Your task to perform on an android device: search for starred emails in the gmail app Image 0: 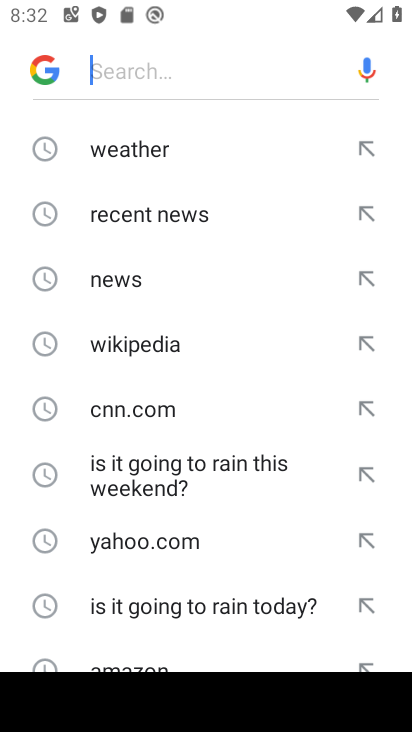
Step 0: press home button
Your task to perform on an android device: search for starred emails in the gmail app Image 1: 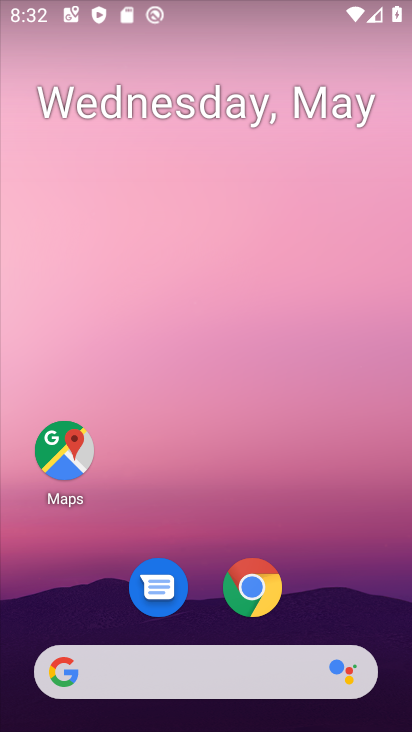
Step 1: drag from (370, 596) to (319, 54)
Your task to perform on an android device: search for starred emails in the gmail app Image 2: 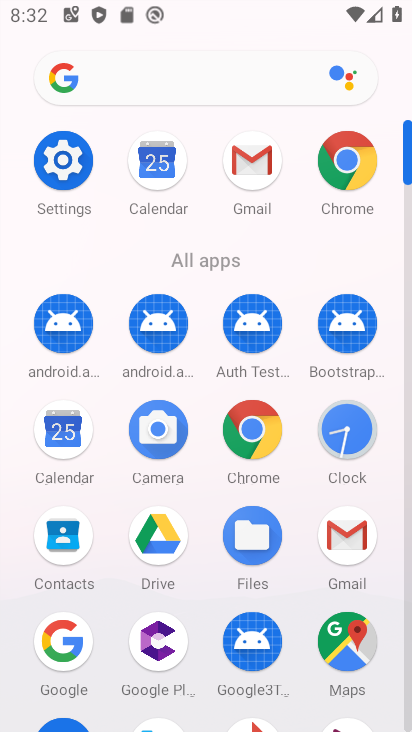
Step 2: click (406, 717)
Your task to perform on an android device: search for starred emails in the gmail app Image 3: 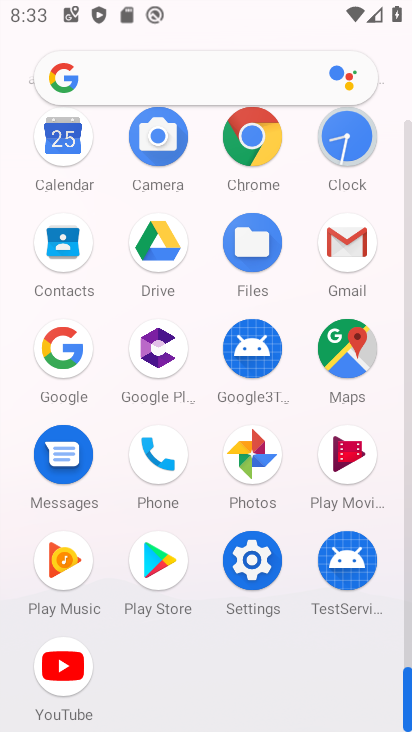
Step 3: click (342, 242)
Your task to perform on an android device: search for starred emails in the gmail app Image 4: 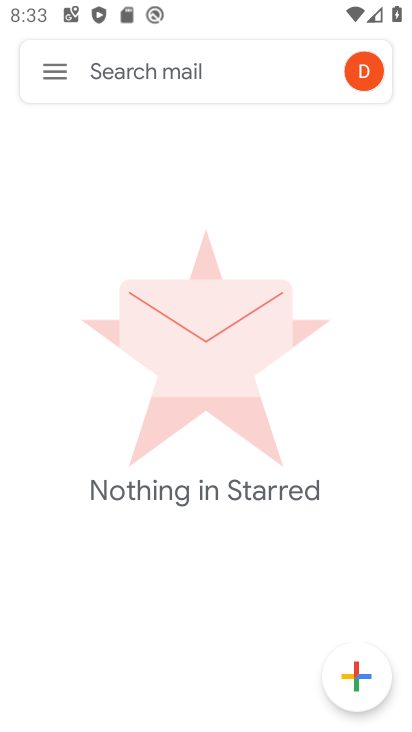
Step 4: click (50, 70)
Your task to perform on an android device: search for starred emails in the gmail app Image 5: 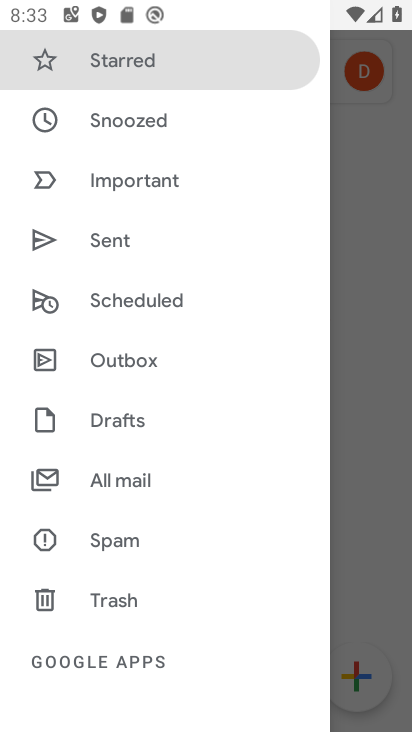
Step 5: click (150, 82)
Your task to perform on an android device: search for starred emails in the gmail app Image 6: 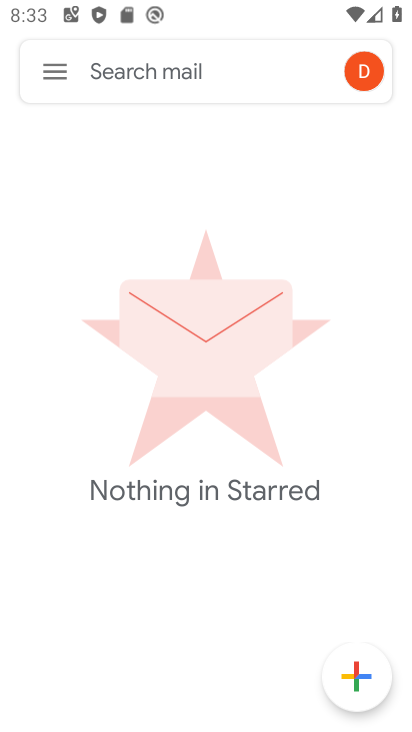
Step 6: task complete